Your task to perform on an android device: check out phone information Image 0: 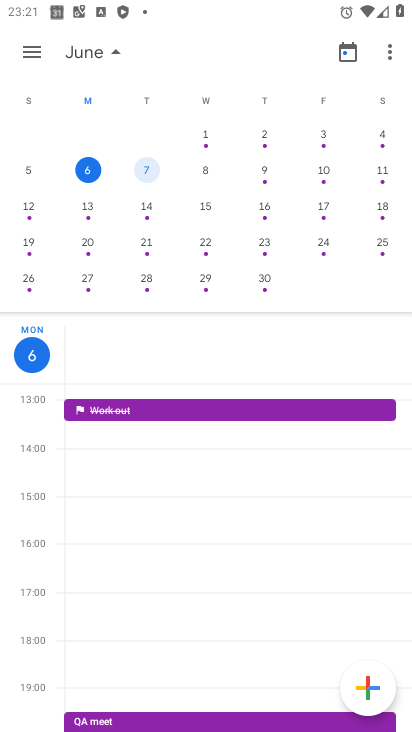
Step 0: press home button
Your task to perform on an android device: check out phone information Image 1: 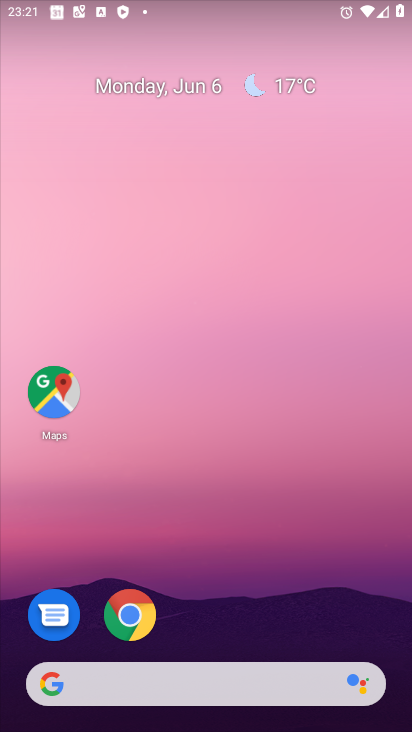
Step 1: drag from (403, 634) to (378, 34)
Your task to perform on an android device: check out phone information Image 2: 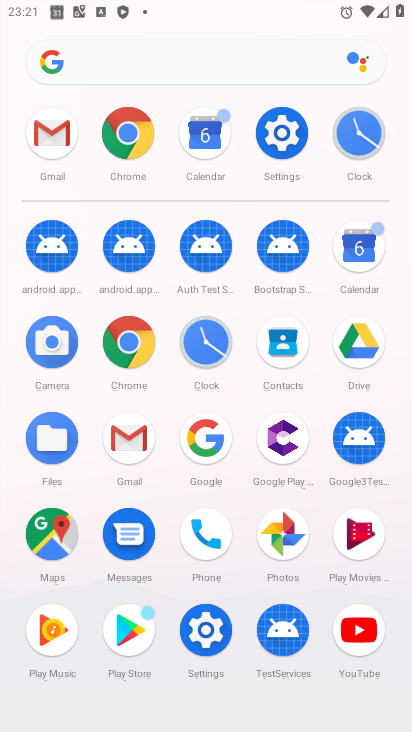
Step 2: click (274, 128)
Your task to perform on an android device: check out phone information Image 3: 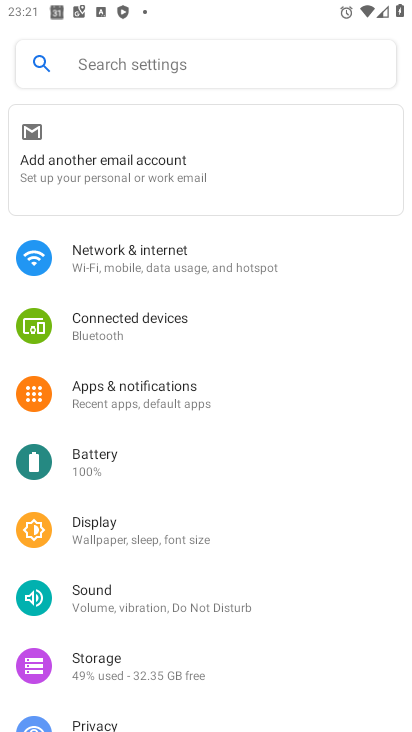
Step 3: drag from (325, 677) to (326, 238)
Your task to perform on an android device: check out phone information Image 4: 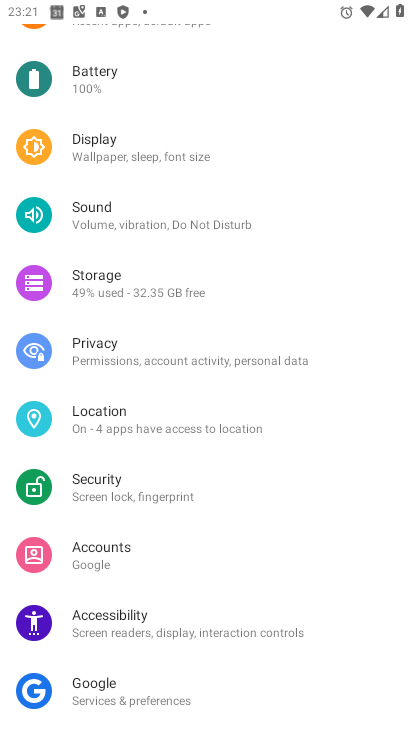
Step 4: drag from (335, 631) to (357, 319)
Your task to perform on an android device: check out phone information Image 5: 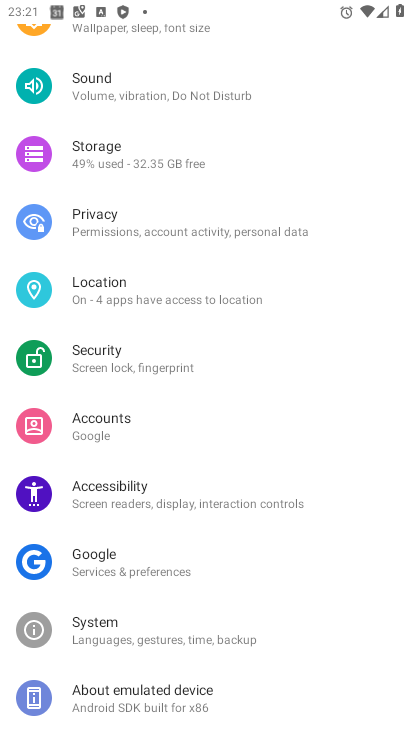
Step 5: drag from (310, 636) to (311, 292)
Your task to perform on an android device: check out phone information Image 6: 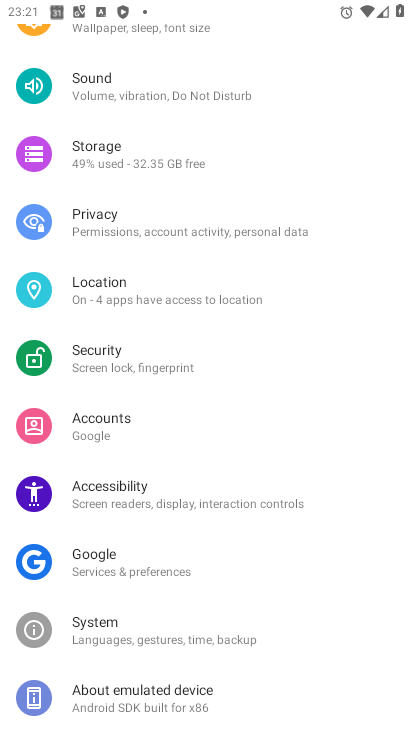
Step 6: click (103, 685)
Your task to perform on an android device: check out phone information Image 7: 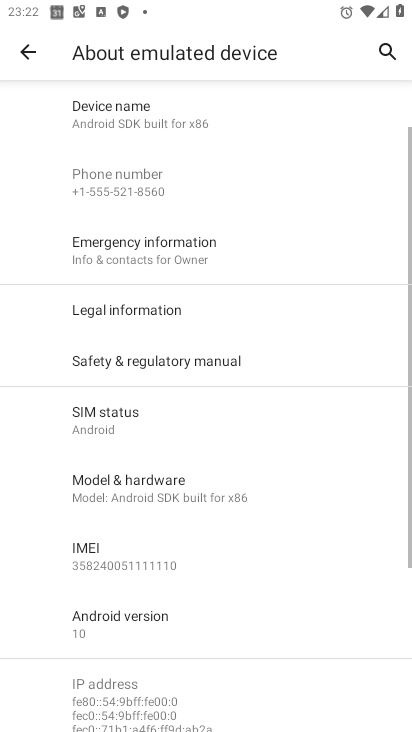
Step 7: task complete